Your task to perform on an android device: move a message to another label in the gmail app Image 0: 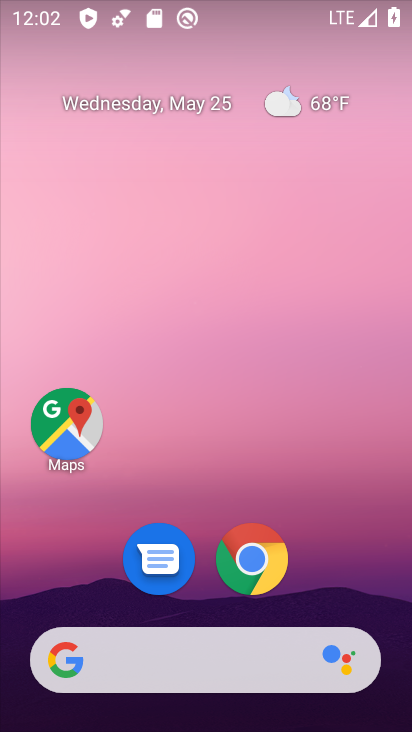
Step 0: drag from (390, 621) to (337, 84)
Your task to perform on an android device: move a message to another label in the gmail app Image 1: 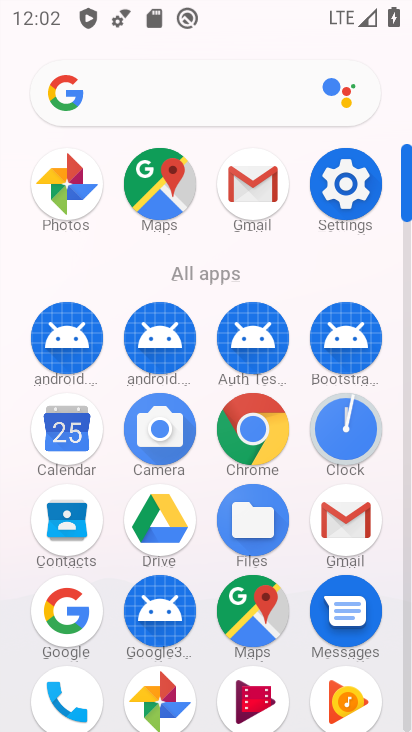
Step 1: click (342, 518)
Your task to perform on an android device: move a message to another label in the gmail app Image 2: 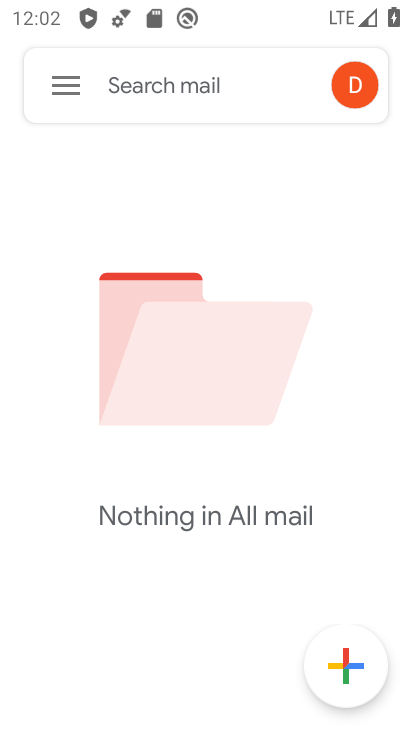
Step 2: click (60, 82)
Your task to perform on an android device: move a message to another label in the gmail app Image 3: 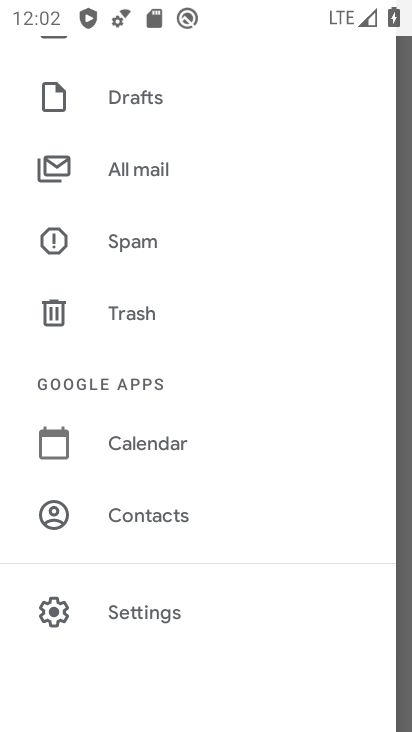
Step 3: click (135, 169)
Your task to perform on an android device: move a message to another label in the gmail app Image 4: 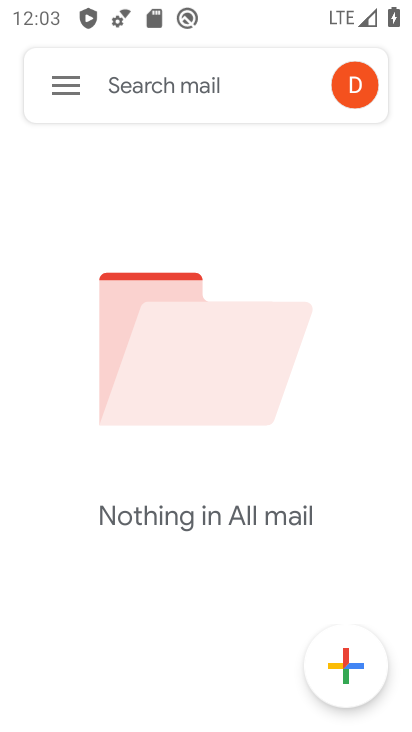
Step 4: task complete